Your task to perform on an android device: Add "dell alienware" to the cart on newegg Image 0: 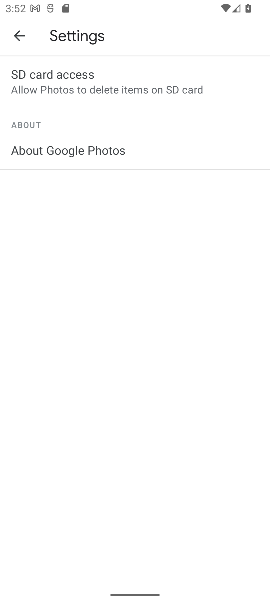
Step 0: press home button
Your task to perform on an android device: Add "dell alienware" to the cart on newegg Image 1: 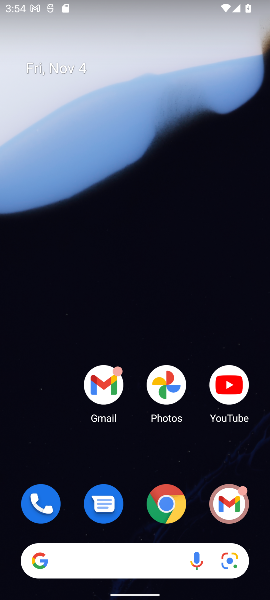
Step 1: click (173, 514)
Your task to perform on an android device: Add "dell alienware" to the cart on newegg Image 2: 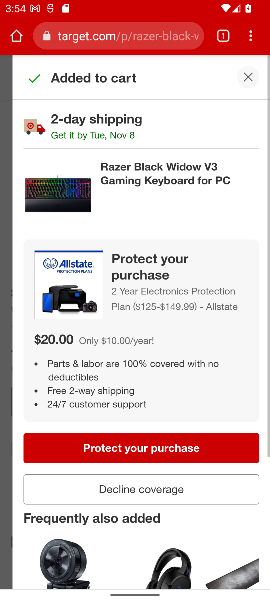
Step 2: click (138, 40)
Your task to perform on an android device: Add "dell alienware" to the cart on newegg Image 3: 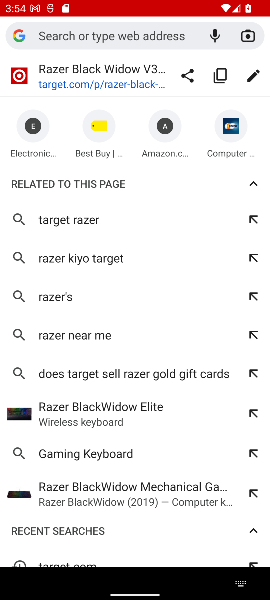
Step 3: type "newegg.com"
Your task to perform on an android device: Add "dell alienware" to the cart on newegg Image 4: 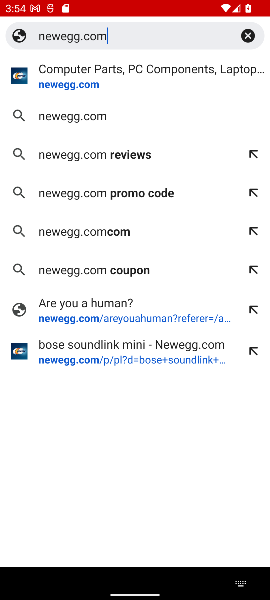
Step 4: click (61, 123)
Your task to perform on an android device: Add "dell alienware" to the cart on newegg Image 5: 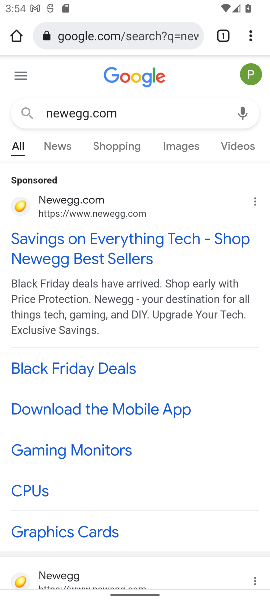
Step 5: drag from (75, 304) to (102, 92)
Your task to perform on an android device: Add "dell alienware" to the cart on newegg Image 6: 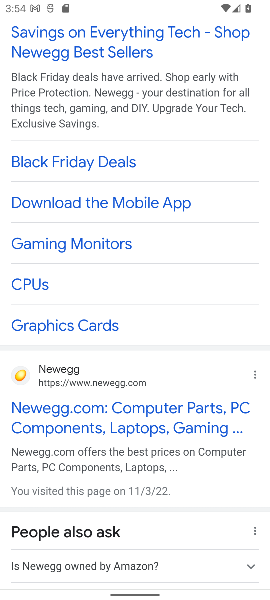
Step 6: click (75, 410)
Your task to perform on an android device: Add "dell alienware" to the cart on newegg Image 7: 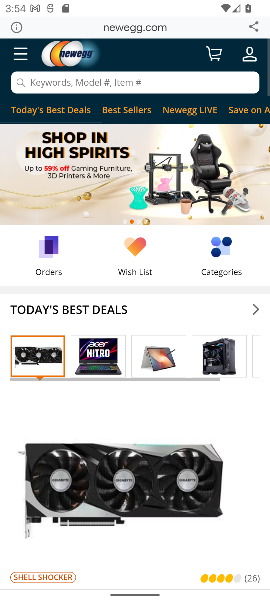
Step 7: click (110, 89)
Your task to perform on an android device: Add "dell alienware" to the cart on newegg Image 8: 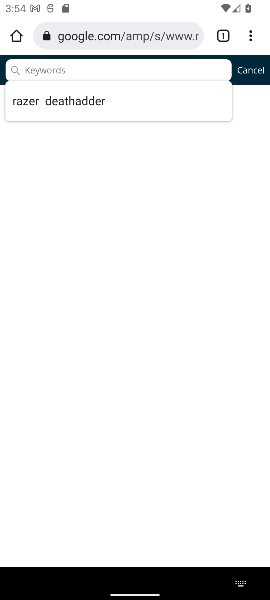
Step 8: type "dell alienware"
Your task to perform on an android device: Add "dell alienware" to the cart on newegg Image 9: 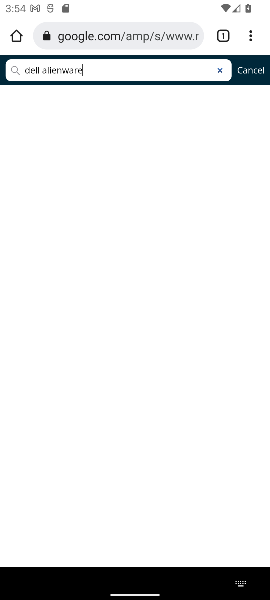
Step 9: click (18, 71)
Your task to perform on an android device: Add "dell alienware" to the cart on newegg Image 10: 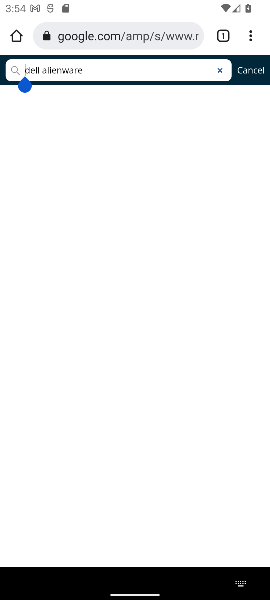
Step 10: task complete